Your task to perform on an android device: add a label to a message in the gmail app Image 0: 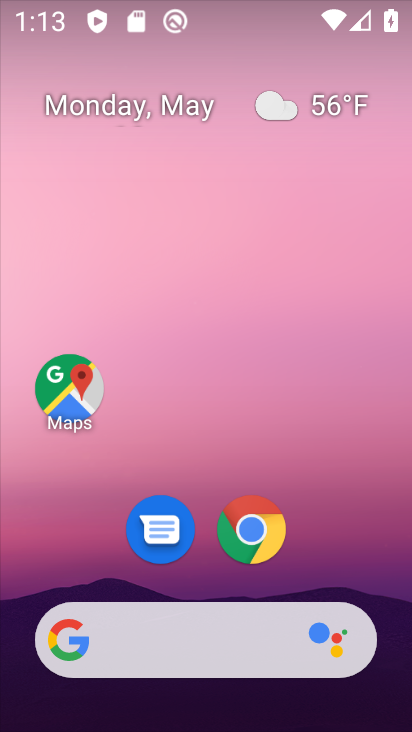
Step 0: drag from (327, 555) to (300, 37)
Your task to perform on an android device: add a label to a message in the gmail app Image 1: 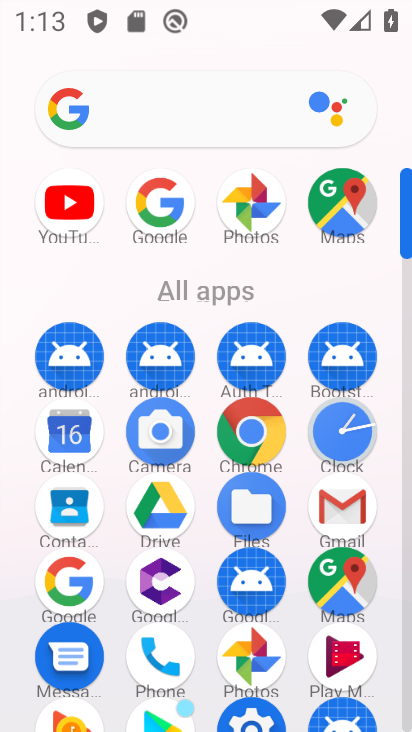
Step 1: click (338, 500)
Your task to perform on an android device: add a label to a message in the gmail app Image 2: 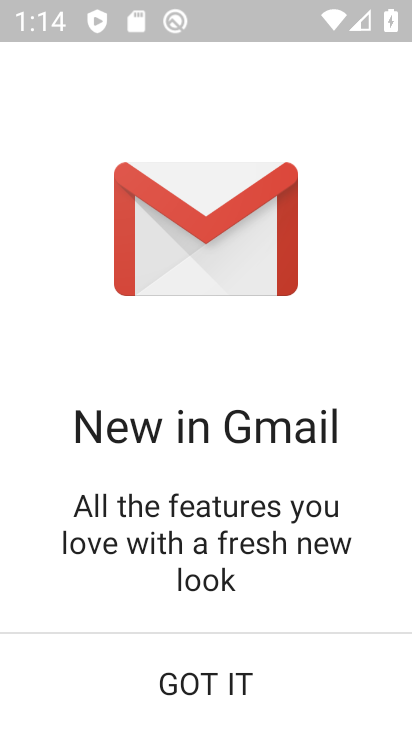
Step 2: click (163, 681)
Your task to perform on an android device: add a label to a message in the gmail app Image 3: 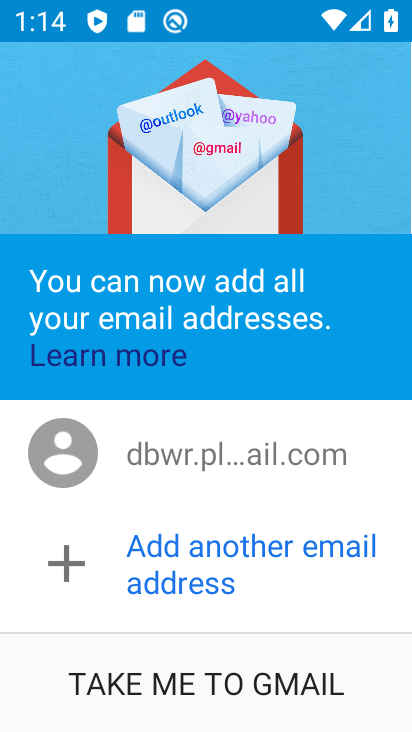
Step 3: click (169, 674)
Your task to perform on an android device: add a label to a message in the gmail app Image 4: 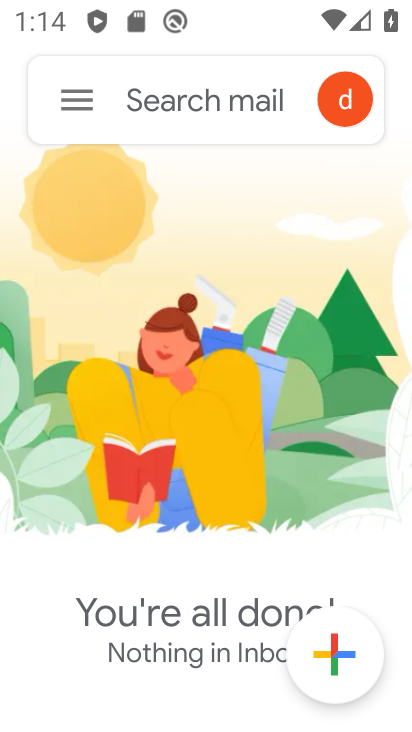
Step 4: click (64, 95)
Your task to perform on an android device: add a label to a message in the gmail app Image 5: 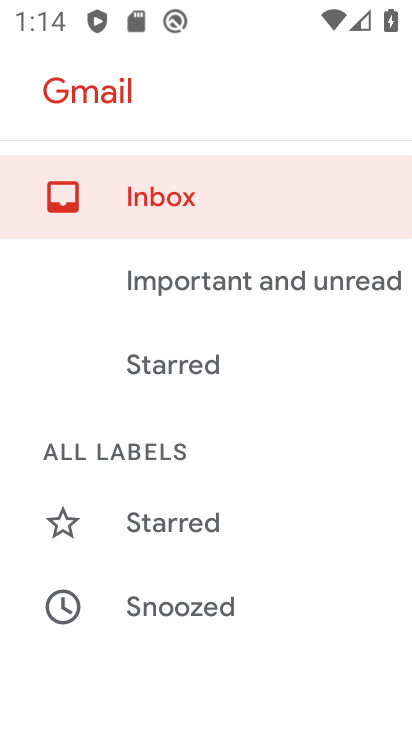
Step 5: drag from (219, 559) to (206, 283)
Your task to perform on an android device: add a label to a message in the gmail app Image 6: 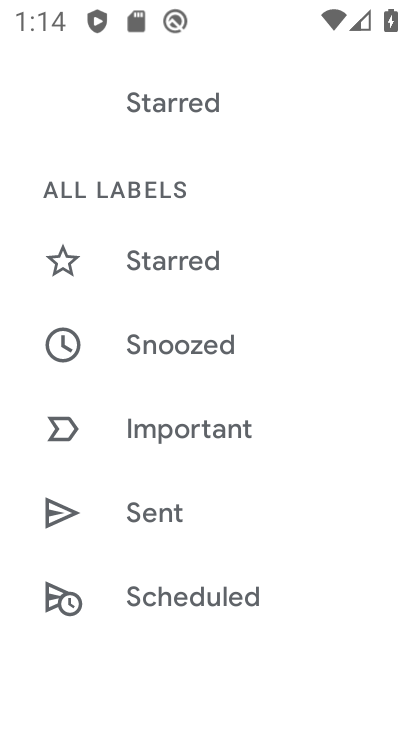
Step 6: drag from (217, 487) to (191, 275)
Your task to perform on an android device: add a label to a message in the gmail app Image 7: 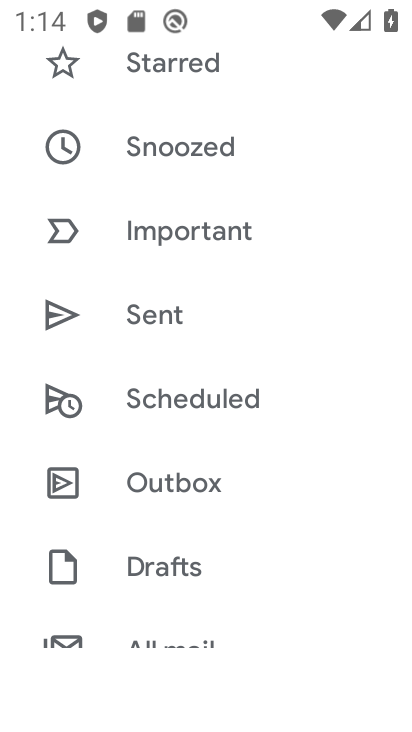
Step 7: drag from (202, 567) to (214, 279)
Your task to perform on an android device: add a label to a message in the gmail app Image 8: 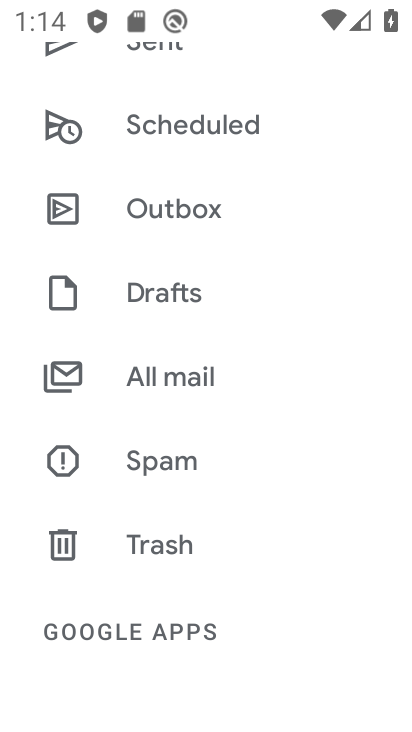
Step 8: click (196, 355)
Your task to perform on an android device: add a label to a message in the gmail app Image 9: 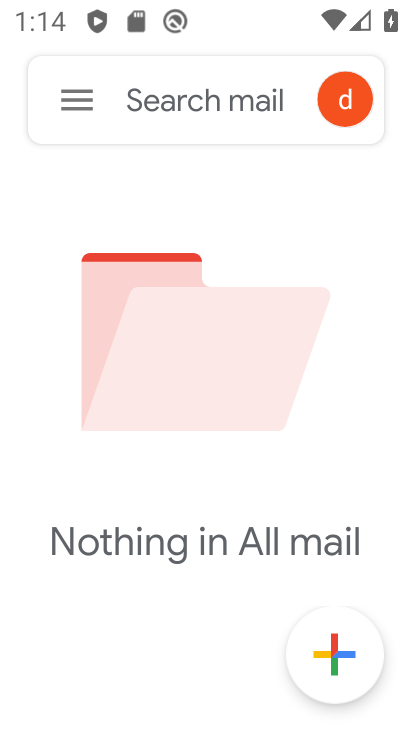
Step 9: task complete